Your task to perform on an android device: When is my next meeting? Image 0: 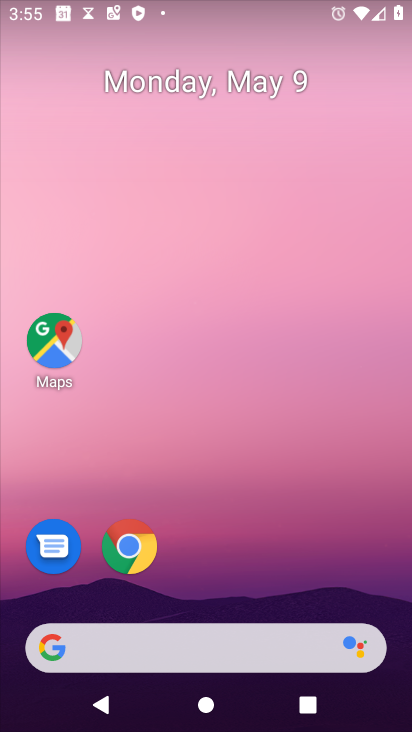
Step 0: drag from (275, 577) to (198, 35)
Your task to perform on an android device: When is my next meeting? Image 1: 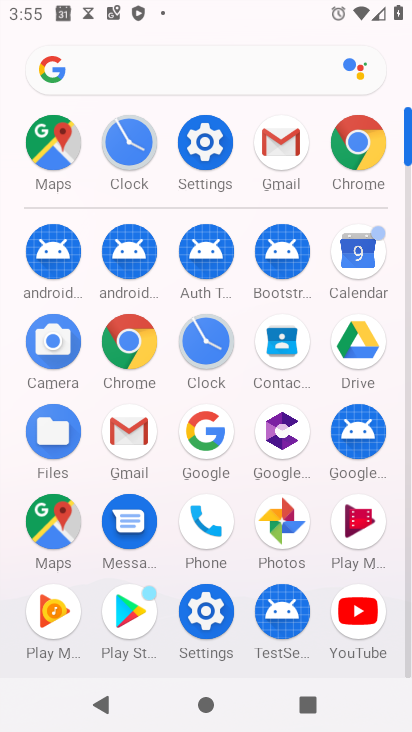
Step 1: click (358, 240)
Your task to perform on an android device: When is my next meeting? Image 2: 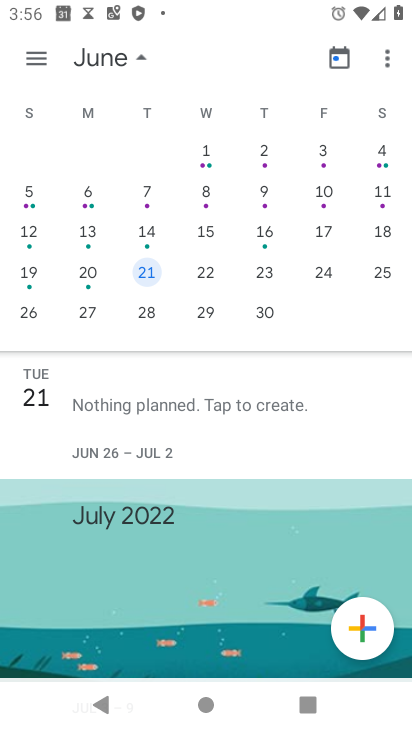
Step 2: task complete